Your task to perform on an android device: check data usage Image 0: 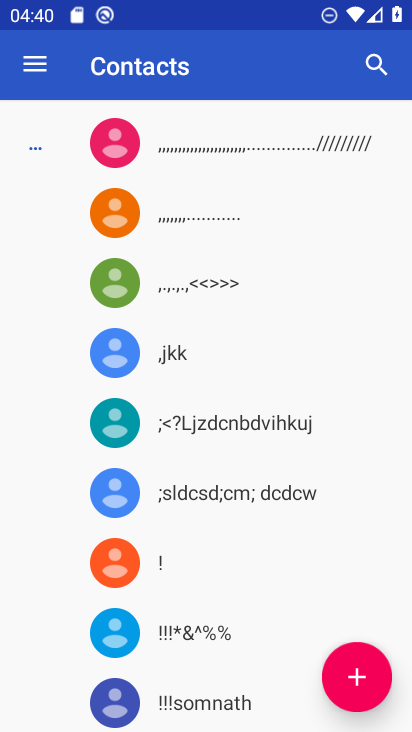
Step 0: press home button
Your task to perform on an android device: check data usage Image 1: 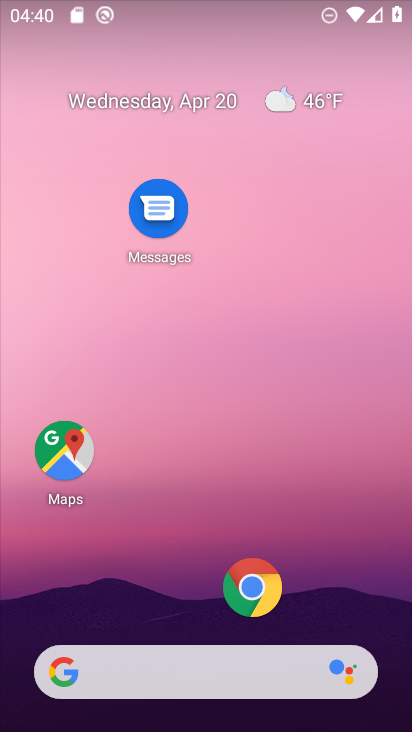
Step 1: drag from (192, 615) to (206, 78)
Your task to perform on an android device: check data usage Image 2: 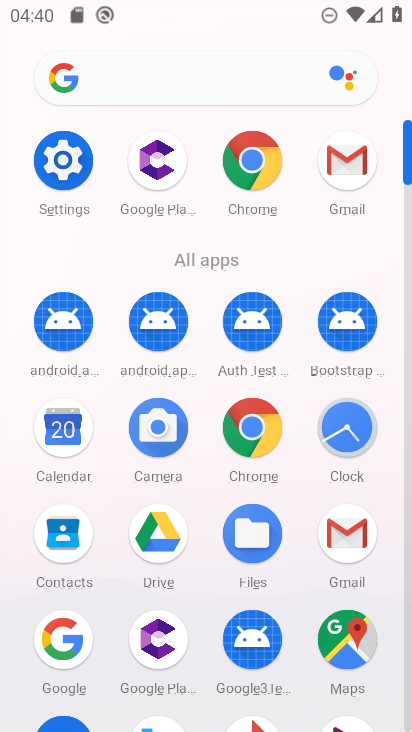
Step 2: click (66, 158)
Your task to perform on an android device: check data usage Image 3: 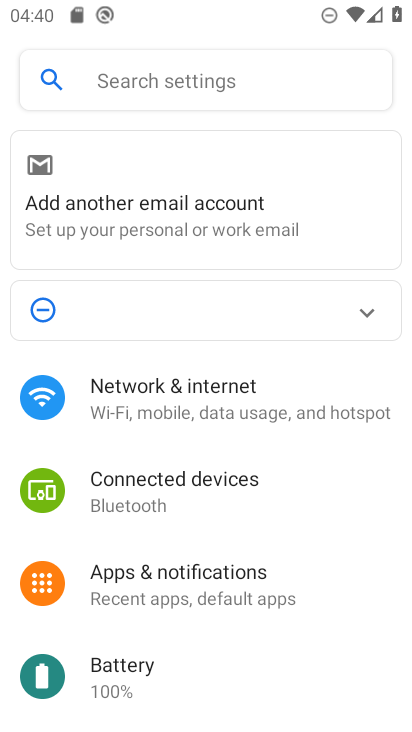
Step 3: drag from (250, 622) to (271, 202)
Your task to perform on an android device: check data usage Image 4: 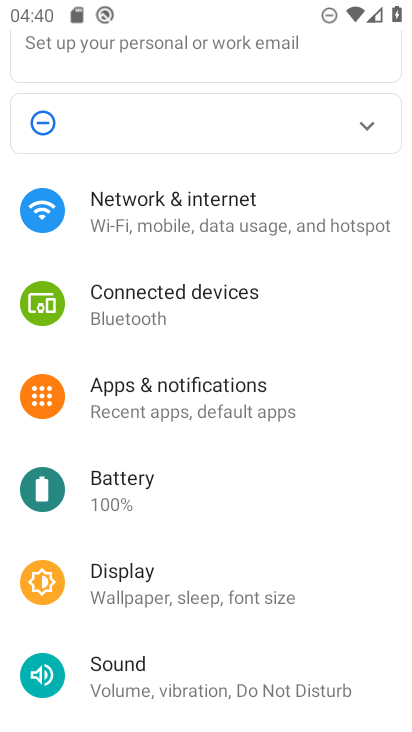
Step 4: drag from (250, 570) to (270, 334)
Your task to perform on an android device: check data usage Image 5: 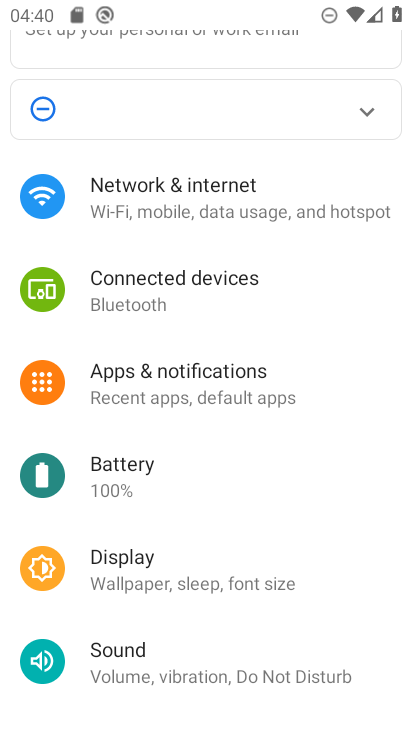
Step 5: drag from (219, 613) to (220, 369)
Your task to perform on an android device: check data usage Image 6: 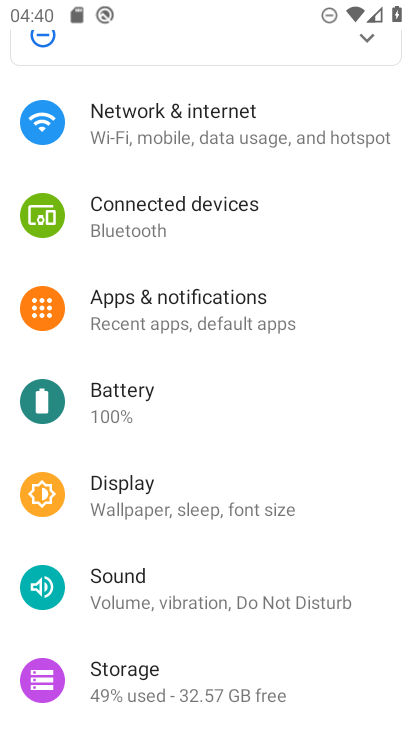
Step 6: drag from (212, 525) to (197, 320)
Your task to perform on an android device: check data usage Image 7: 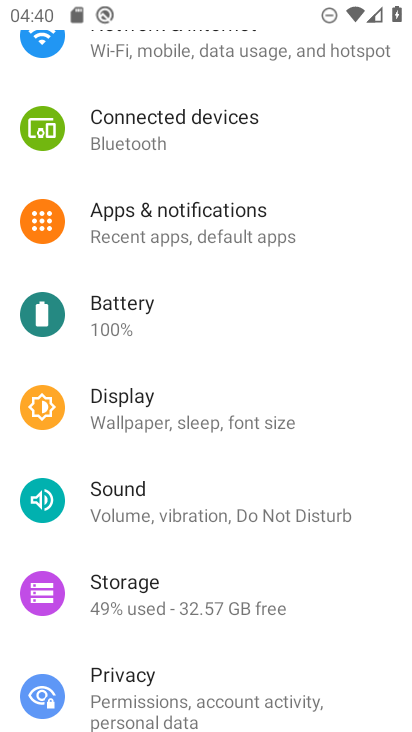
Step 7: drag from (246, 525) to (258, 341)
Your task to perform on an android device: check data usage Image 8: 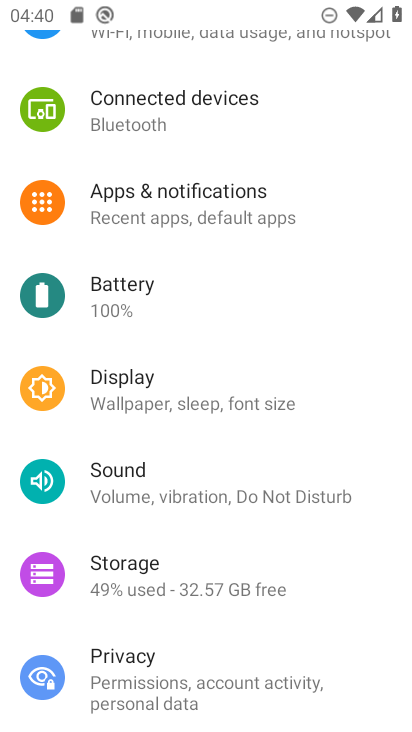
Step 8: drag from (233, 282) to (242, 489)
Your task to perform on an android device: check data usage Image 9: 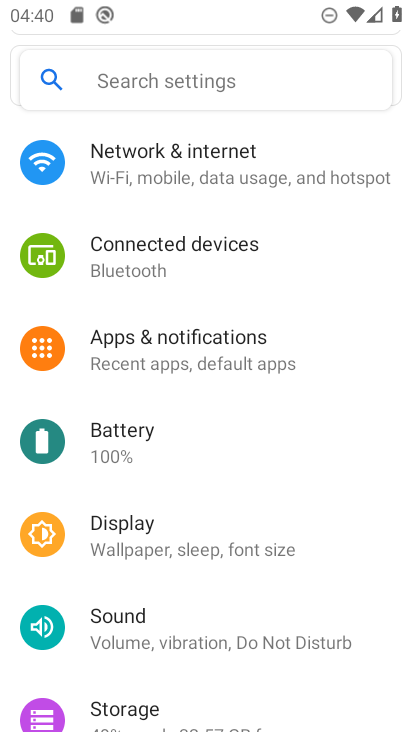
Step 9: drag from (208, 231) to (212, 514)
Your task to perform on an android device: check data usage Image 10: 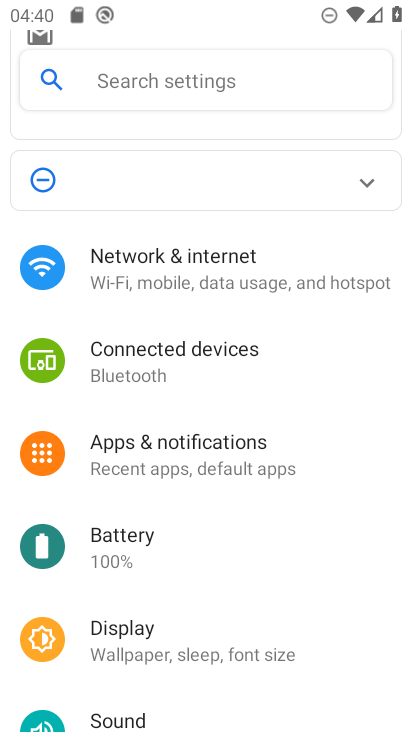
Step 10: click (208, 288)
Your task to perform on an android device: check data usage Image 11: 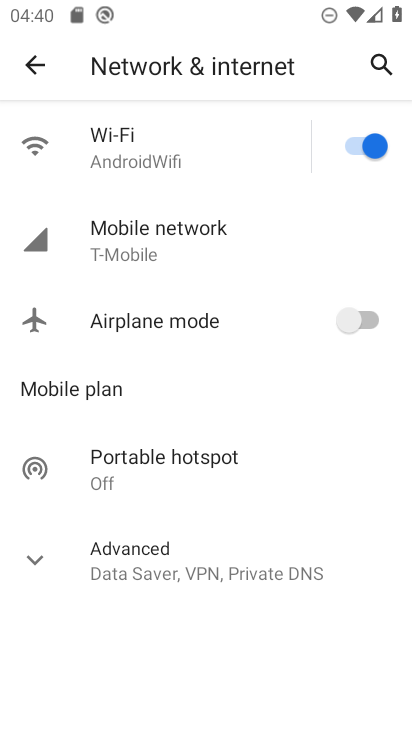
Step 11: click (204, 237)
Your task to perform on an android device: check data usage Image 12: 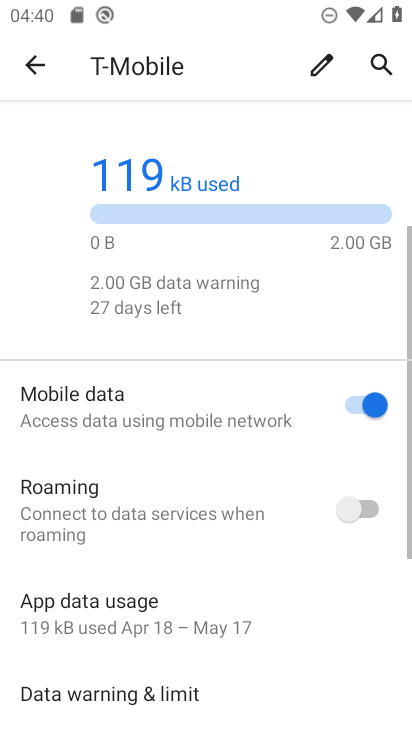
Step 12: drag from (184, 646) to (201, 375)
Your task to perform on an android device: check data usage Image 13: 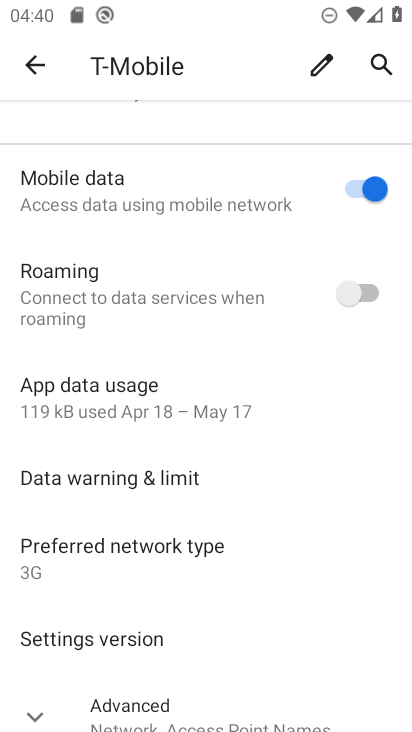
Step 13: drag from (231, 625) to (241, 345)
Your task to perform on an android device: check data usage Image 14: 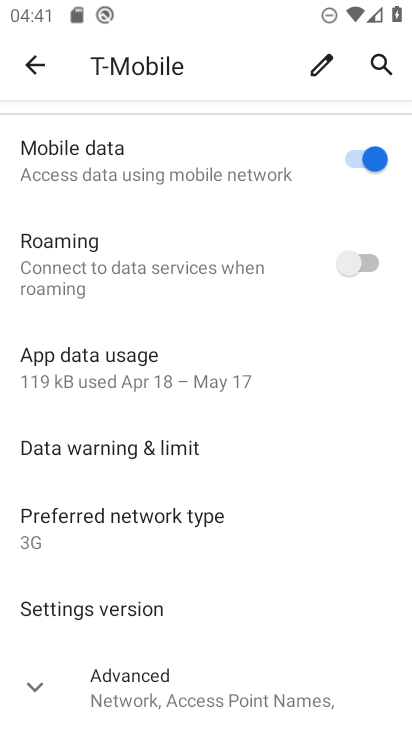
Step 14: click (142, 377)
Your task to perform on an android device: check data usage Image 15: 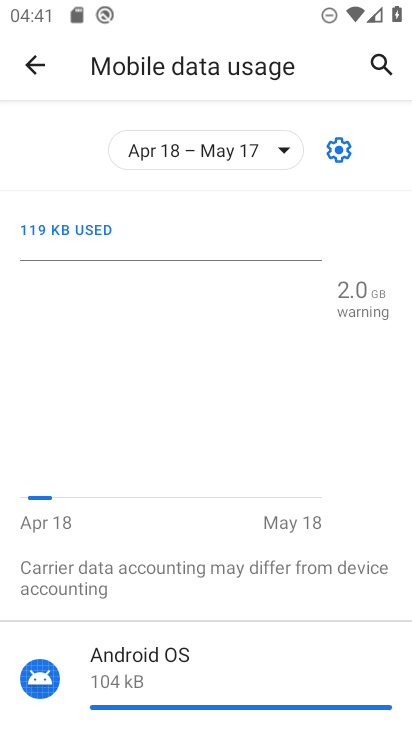
Step 15: task complete